Your task to perform on an android device: Open eBay Image 0: 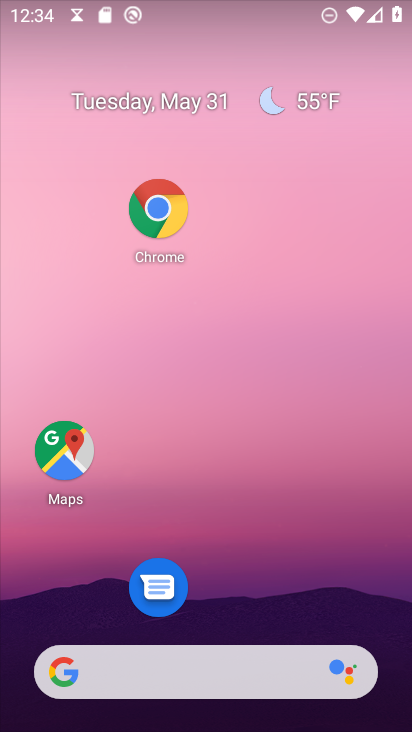
Step 0: click (151, 206)
Your task to perform on an android device: Open eBay Image 1: 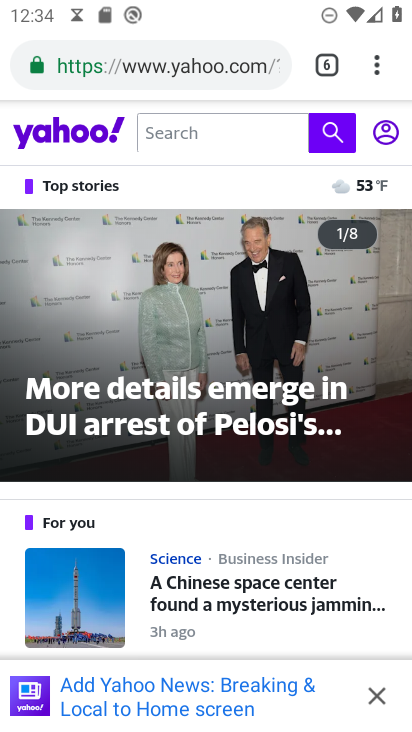
Step 1: click (382, 69)
Your task to perform on an android device: Open eBay Image 2: 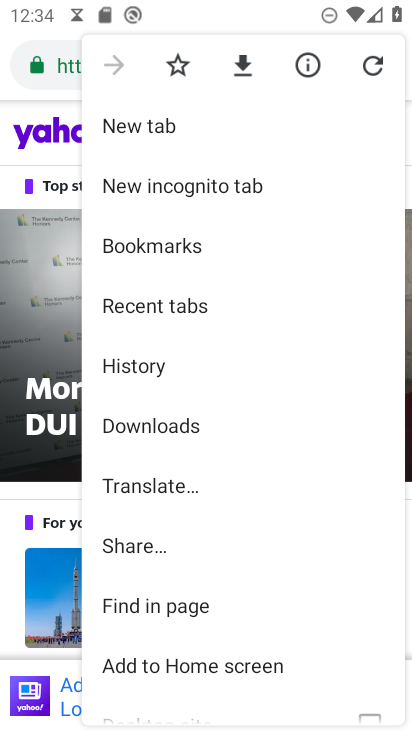
Step 2: click (135, 123)
Your task to perform on an android device: Open eBay Image 3: 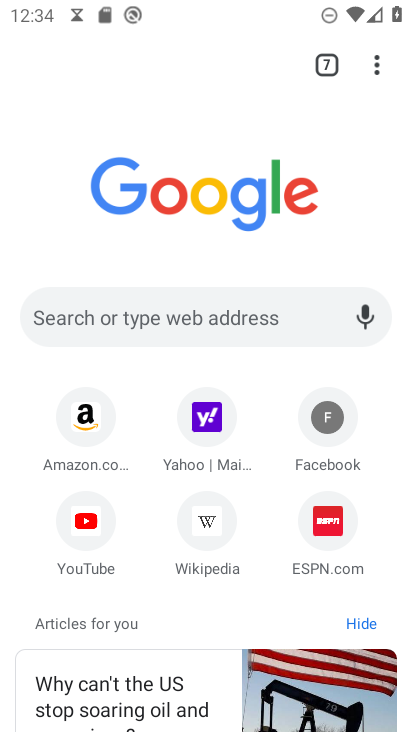
Step 3: click (102, 316)
Your task to perform on an android device: Open eBay Image 4: 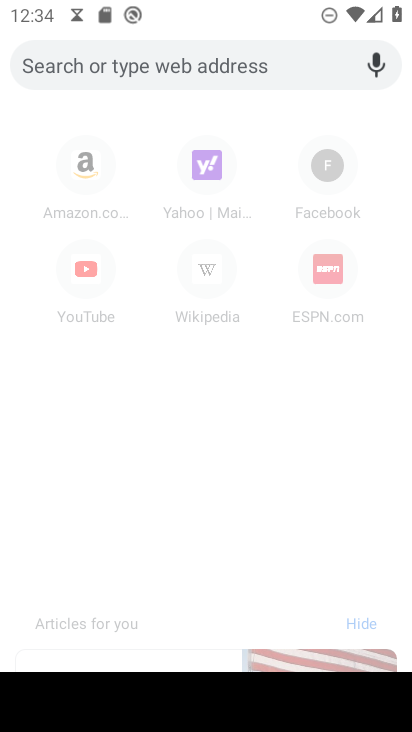
Step 4: type "ebay"
Your task to perform on an android device: Open eBay Image 5: 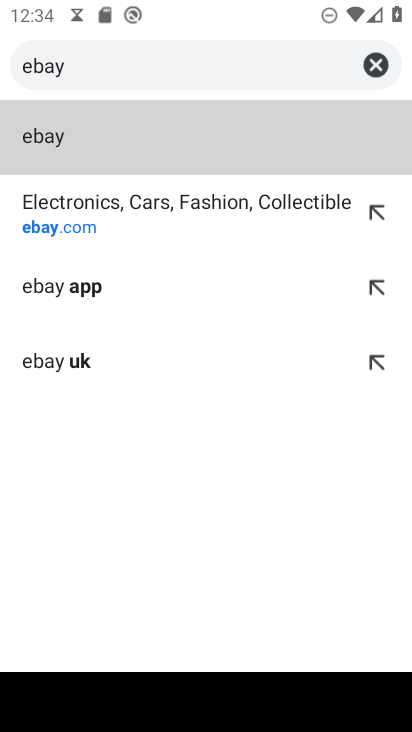
Step 5: click (97, 208)
Your task to perform on an android device: Open eBay Image 6: 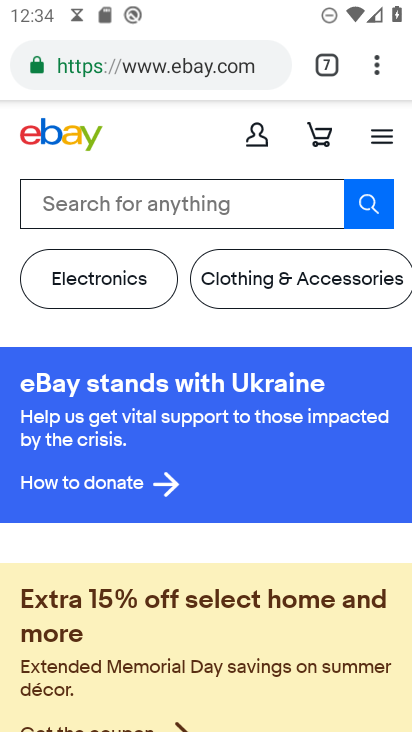
Step 6: task complete